Your task to perform on an android device: change the upload size in google photos Image 0: 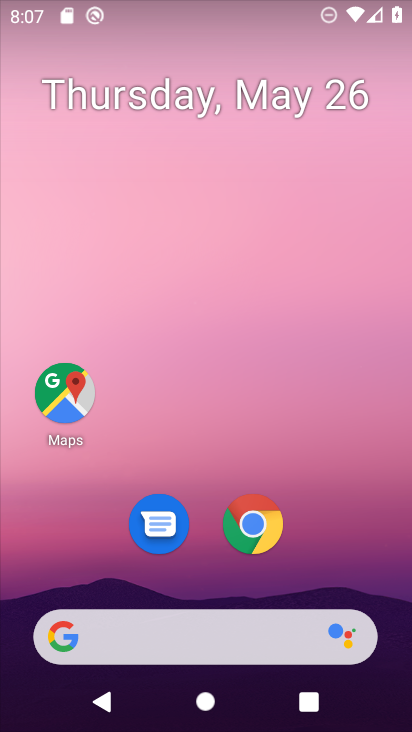
Step 0: drag from (306, 499) to (297, 21)
Your task to perform on an android device: change the upload size in google photos Image 1: 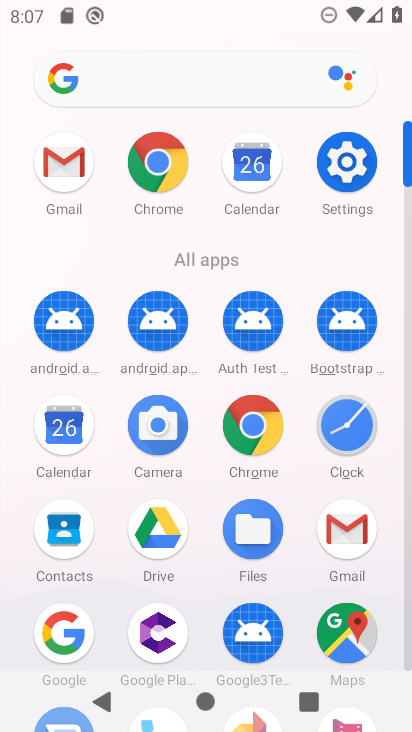
Step 1: drag from (293, 413) to (290, 139)
Your task to perform on an android device: change the upload size in google photos Image 2: 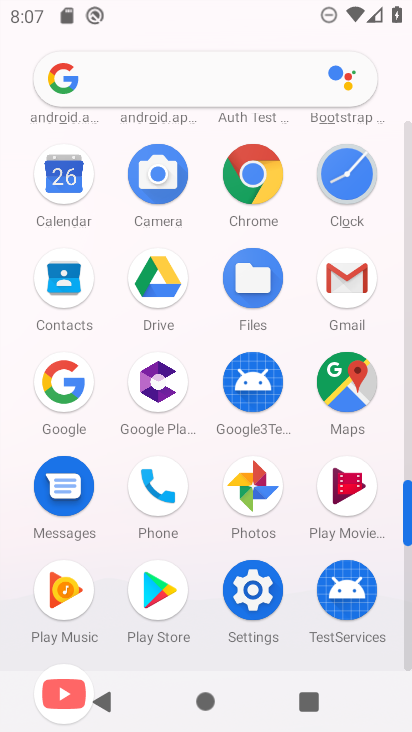
Step 2: click (271, 481)
Your task to perform on an android device: change the upload size in google photos Image 3: 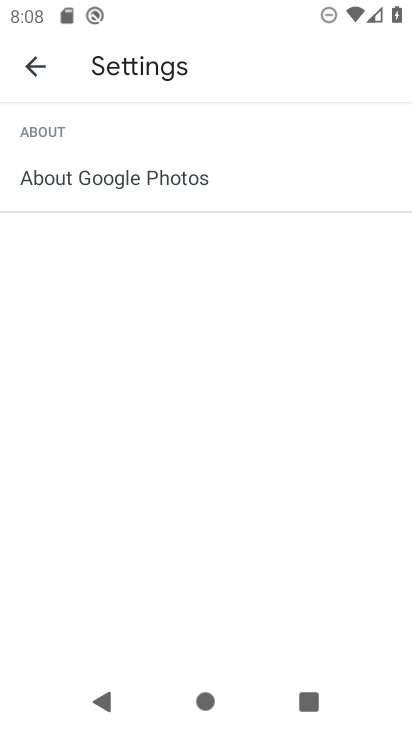
Step 3: click (31, 62)
Your task to perform on an android device: change the upload size in google photos Image 4: 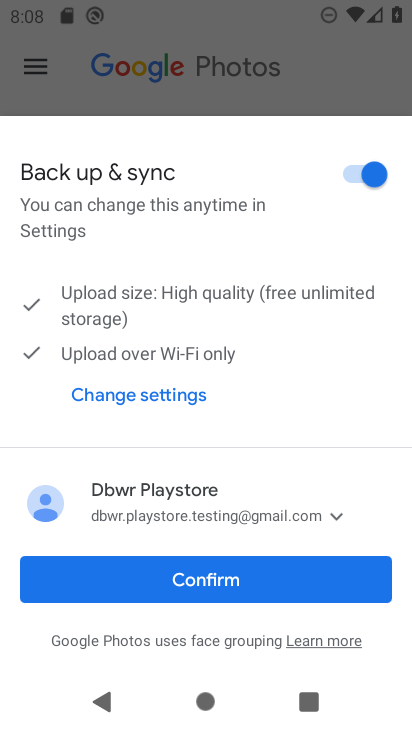
Step 4: click (34, 71)
Your task to perform on an android device: change the upload size in google photos Image 5: 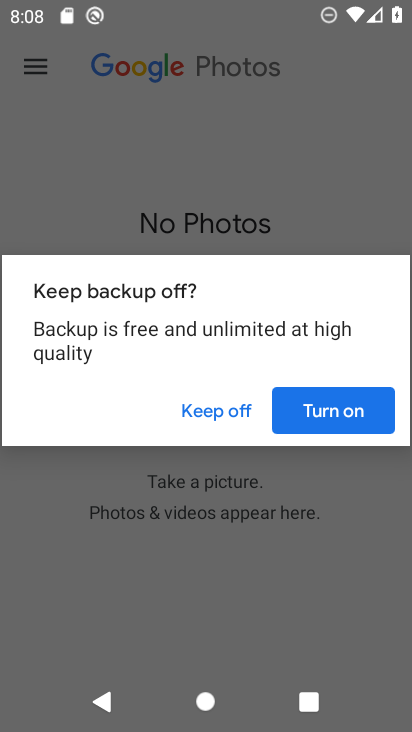
Step 5: click (346, 410)
Your task to perform on an android device: change the upload size in google photos Image 6: 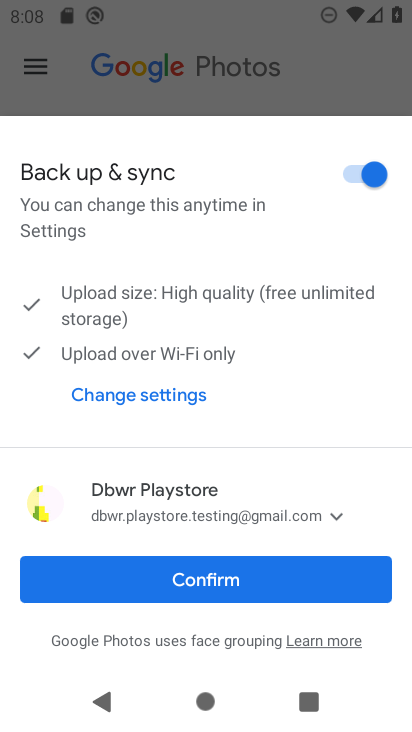
Step 6: click (327, 571)
Your task to perform on an android device: change the upload size in google photos Image 7: 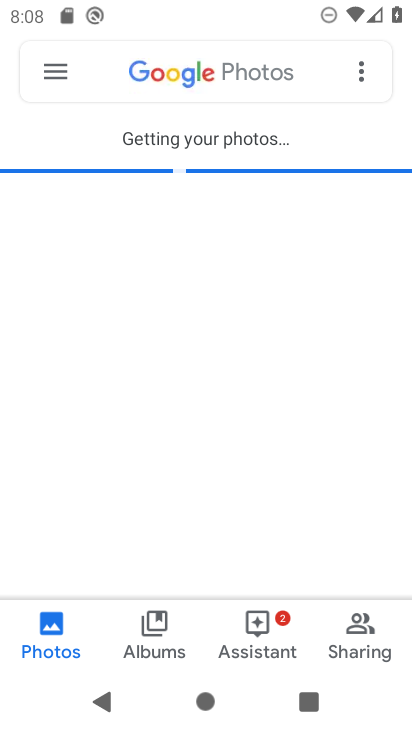
Step 7: click (48, 67)
Your task to perform on an android device: change the upload size in google photos Image 8: 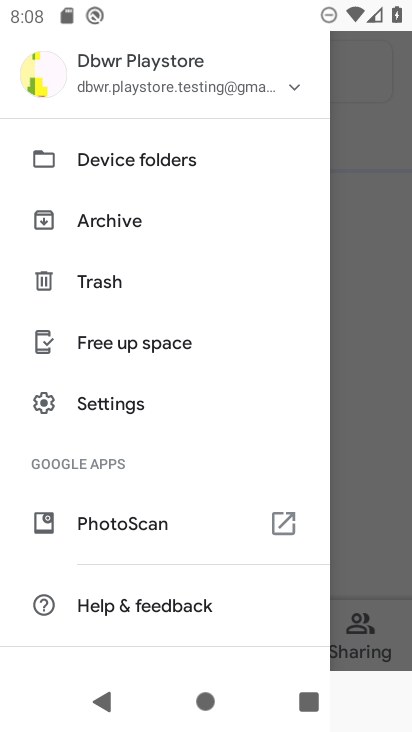
Step 8: click (125, 386)
Your task to perform on an android device: change the upload size in google photos Image 9: 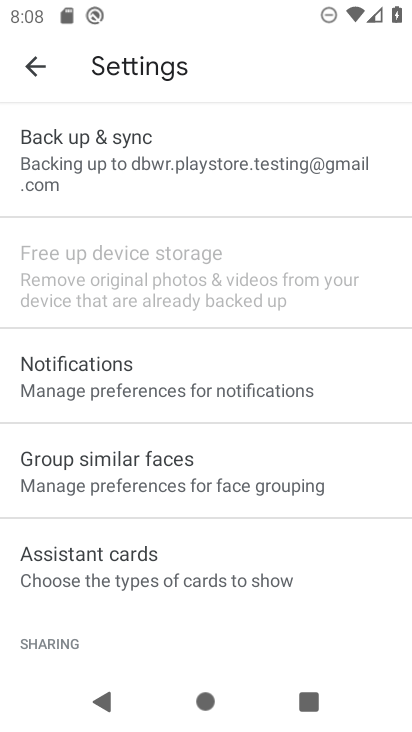
Step 9: click (189, 159)
Your task to perform on an android device: change the upload size in google photos Image 10: 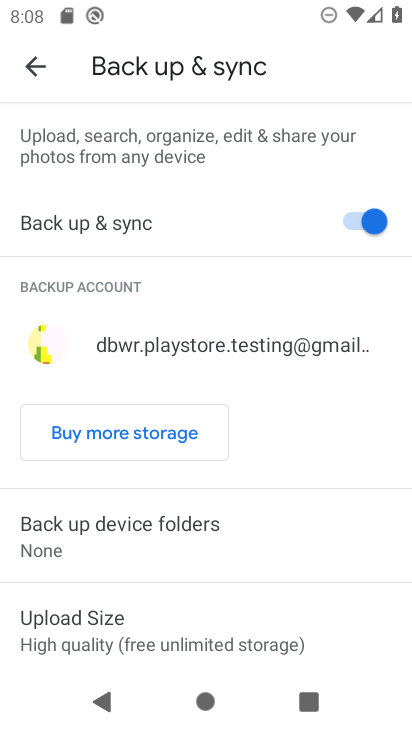
Step 10: click (256, 632)
Your task to perform on an android device: change the upload size in google photos Image 11: 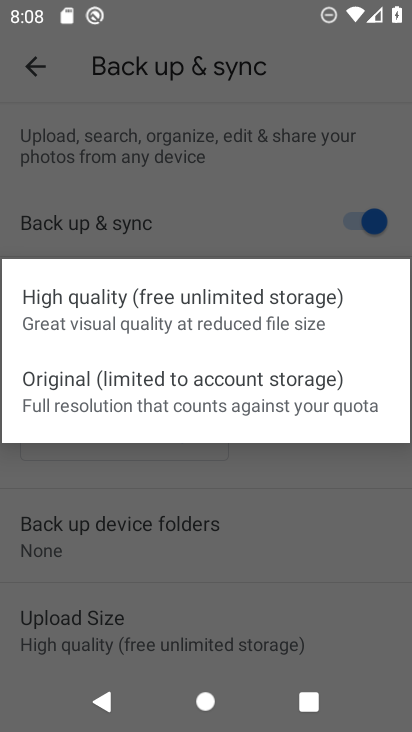
Step 11: click (224, 394)
Your task to perform on an android device: change the upload size in google photos Image 12: 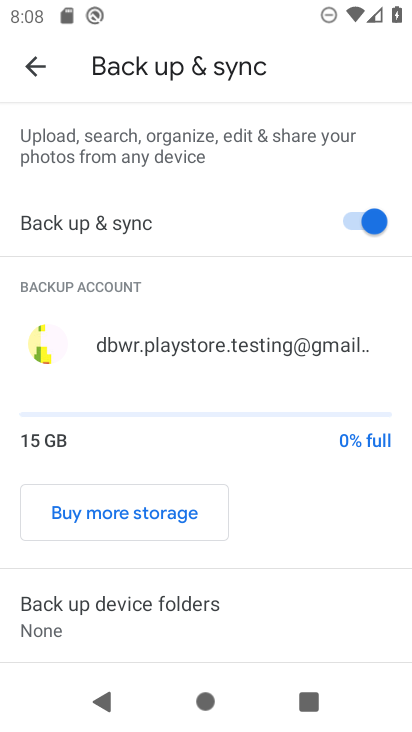
Step 12: task complete